Your task to perform on an android device: turn notification dots off Image 0: 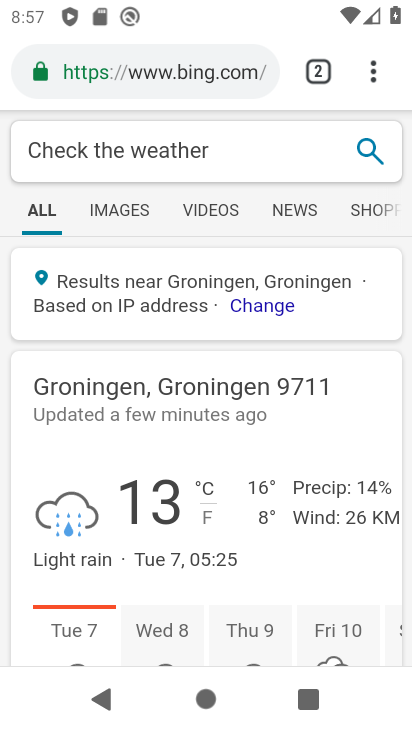
Step 0: press home button
Your task to perform on an android device: turn notification dots off Image 1: 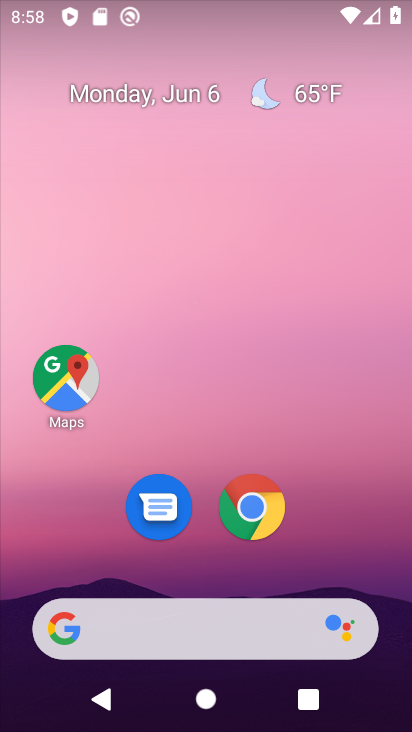
Step 1: drag from (282, 577) to (311, 262)
Your task to perform on an android device: turn notification dots off Image 2: 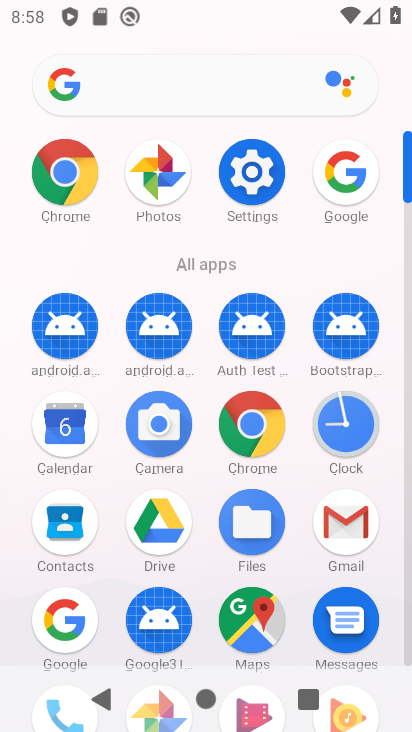
Step 2: click (236, 158)
Your task to perform on an android device: turn notification dots off Image 3: 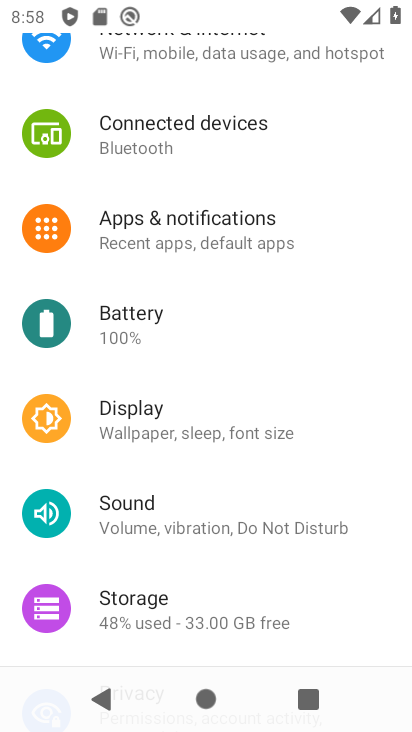
Step 3: drag from (273, 96) to (267, 501)
Your task to perform on an android device: turn notification dots off Image 4: 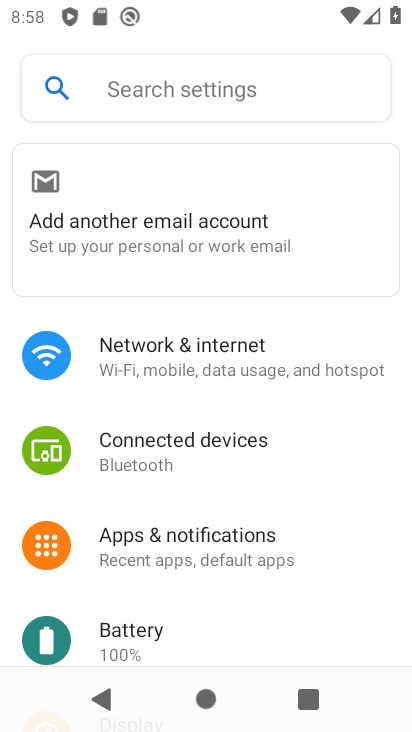
Step 4: click (184, 78)
Your task to perform on an android device: turn notification dots off Image 5: 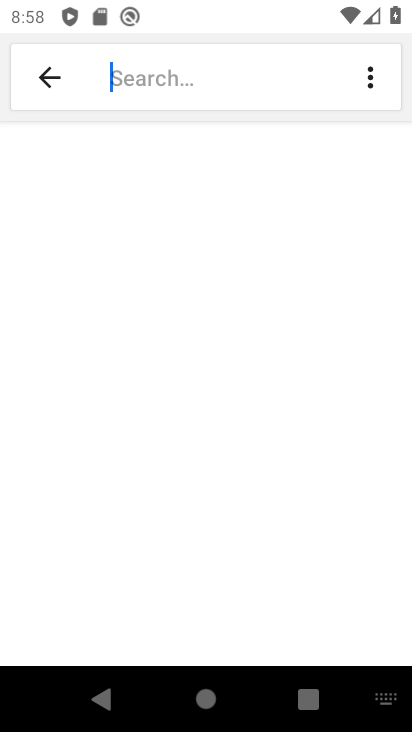
Step 5: click (223, 73)
Your task to perform on an android device: turn notification dots off Image 6: 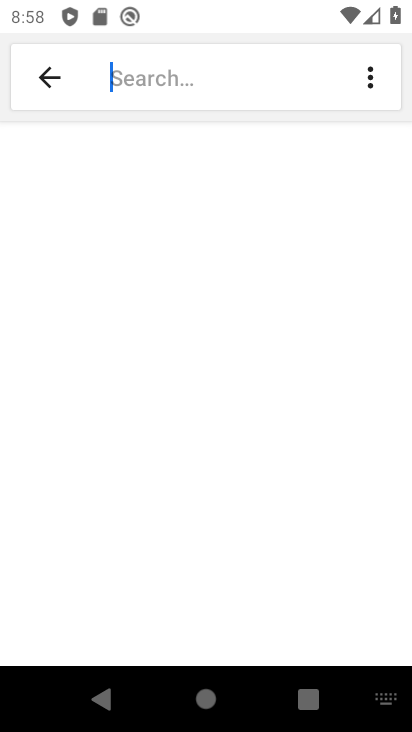
Step 6: type "notification dots"
Your task to perform on an android device: turn notification dots off Image 7: 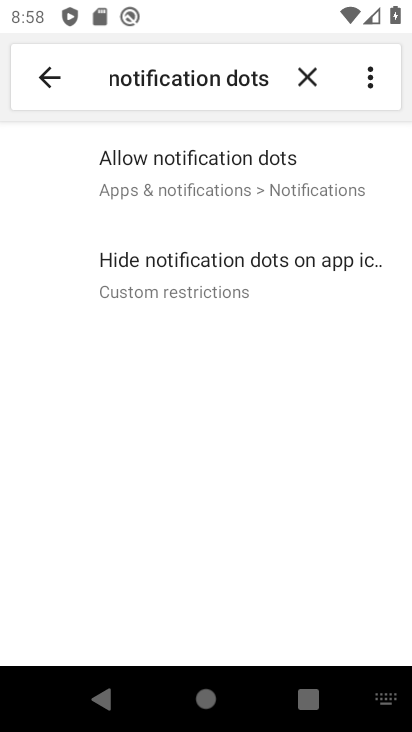
Step 7: click (174, 185)
Your task to perform on an android device: turn notification dots off Image 8: 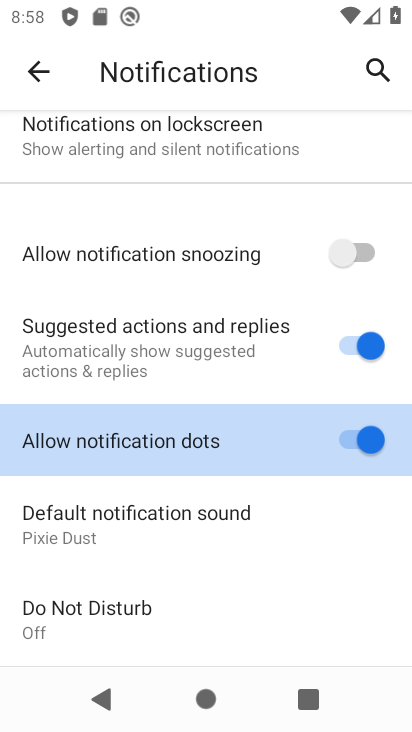
Step 8: click (366, 438)
Your task to perform on an android device: turn notification dots off Image 9: 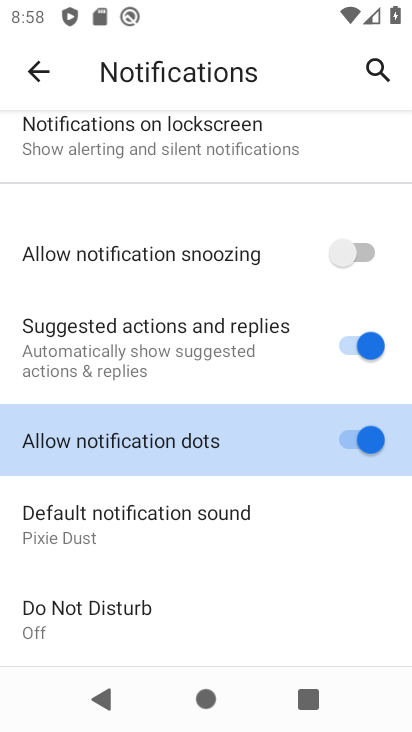
Step 9: click (373, 420)
Your task to perform on an android device: turn notification dots off Image 10: 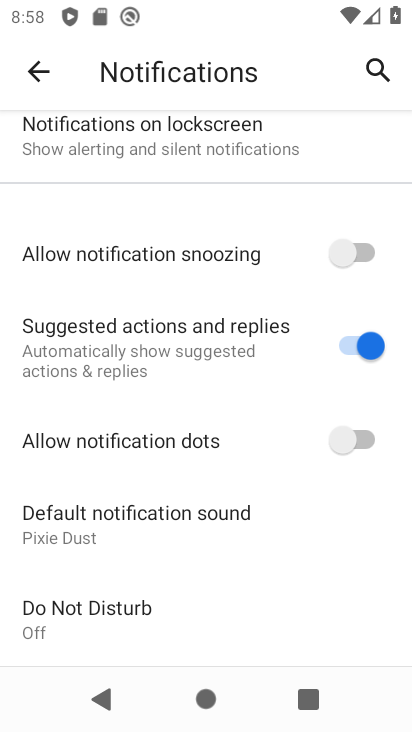
Step 10: task complete